Your task to perform on an android device: Open calendar and show me the fourth week of next month Image 0: 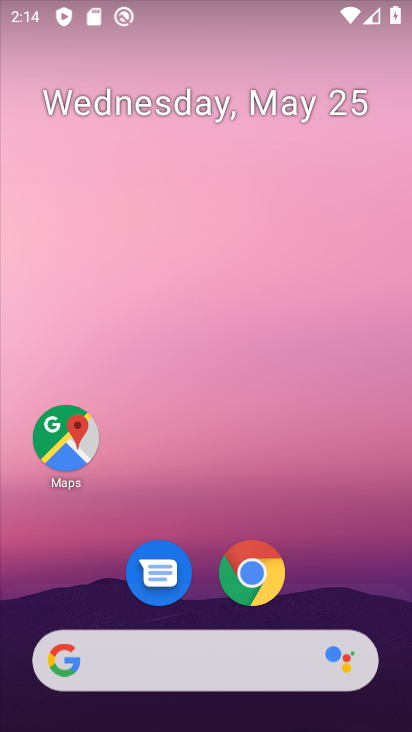
Step 0: drag from (70, 621) to (230, 201)
Your task to perform on an android device: Open calendar and show me the fourth week of next month Image 1: 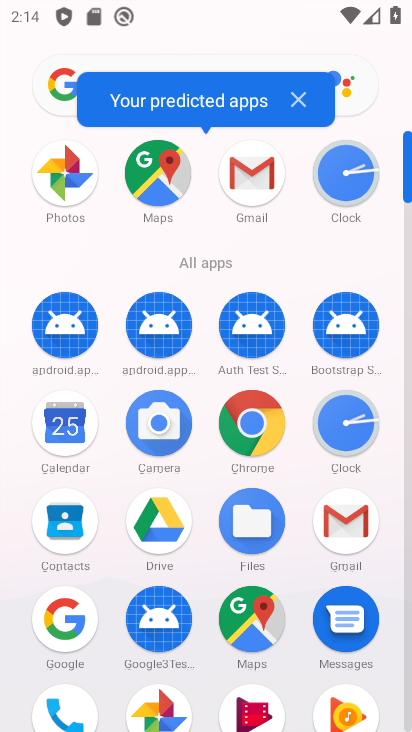
Step 1: click (57, 451)
Your task to perform on an android device: Open calendar and show me the fourth week of next month Image 2: 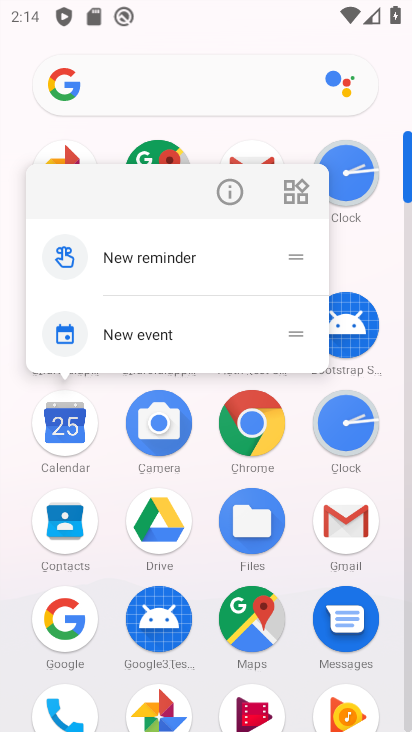
Step 2: click (69, 444)
Your task to perform on an android device: Open calendar and show me the fourth week of next month Image 3: 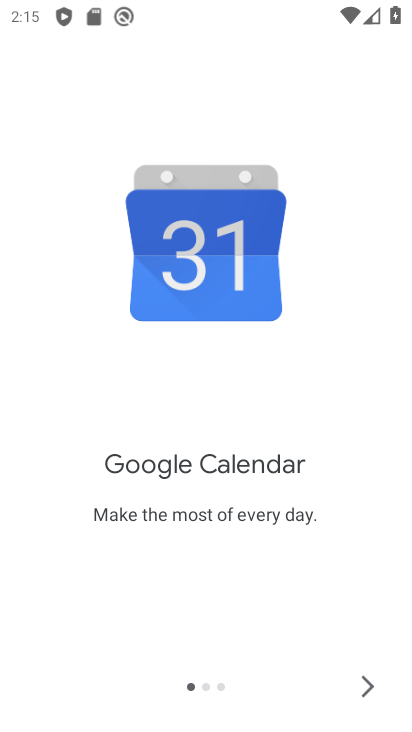
Step 3: click (365, 685)
Your task to perform on an android device: Open calendar and show me the fourth week of next month Image 4: 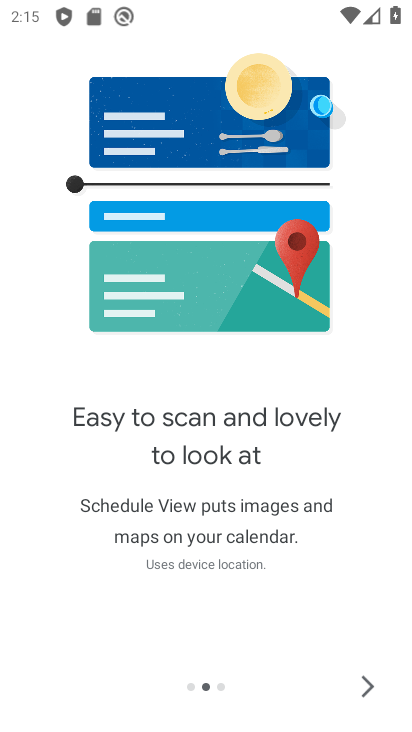
Step 4: click (365, 685)
Your task to perform on an android device: Open calendar and show me the fourth week of next month Image 5: 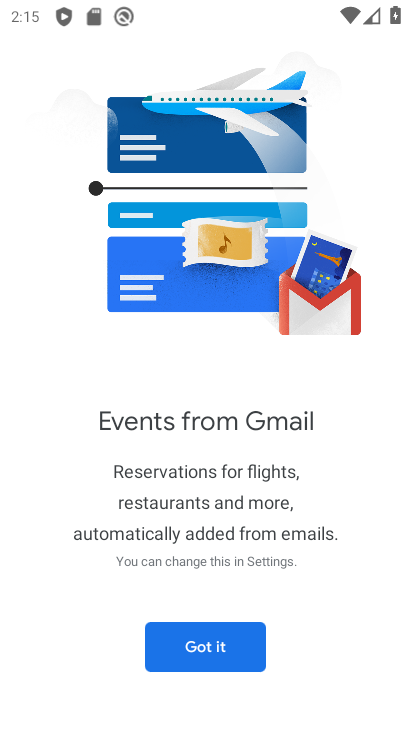
Step 5: click (365, 685)
Your task to perform on an android device: Open calendar and show me the fourth week of next month Image 6: 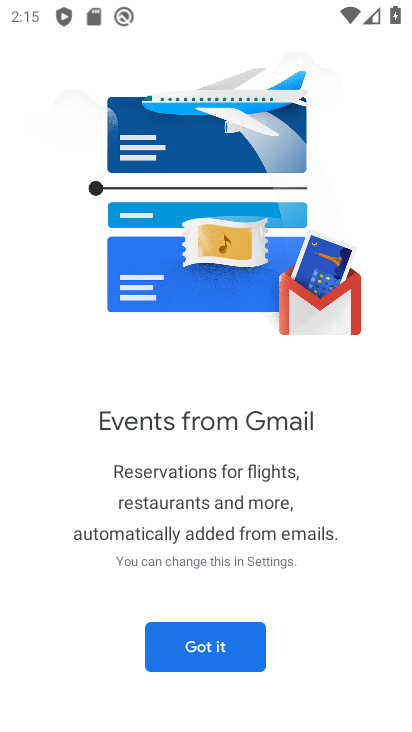
Step 6: click (175, 643)
Your task to perform on an android device: Open calendar and show me the fourth week of next month Image 7: 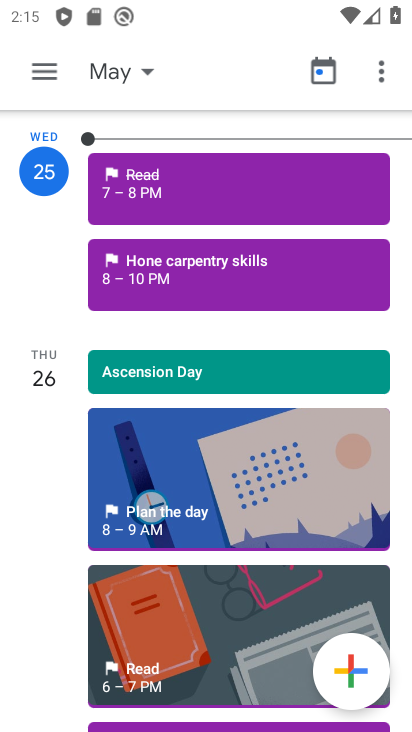
Step 7: click (132, 70)
Your task to perform on an android device: Open calendar and show me the fourth week of next month Image 8: 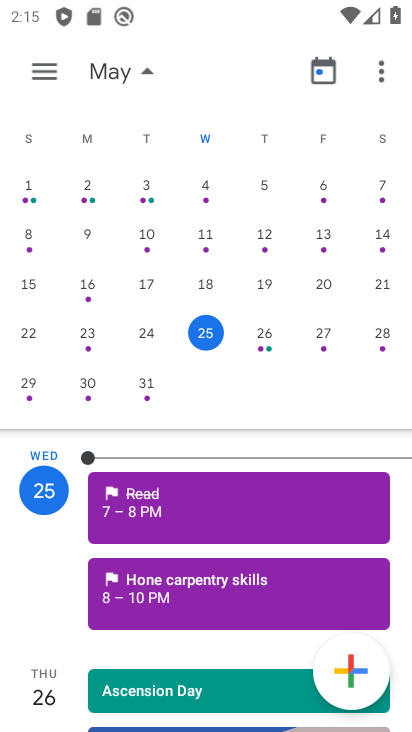
Step 8: drag from (332, 391) to (10, 374)
Your task to perform on an android device: Open calendar and show me the fourth week of next month Image 9: 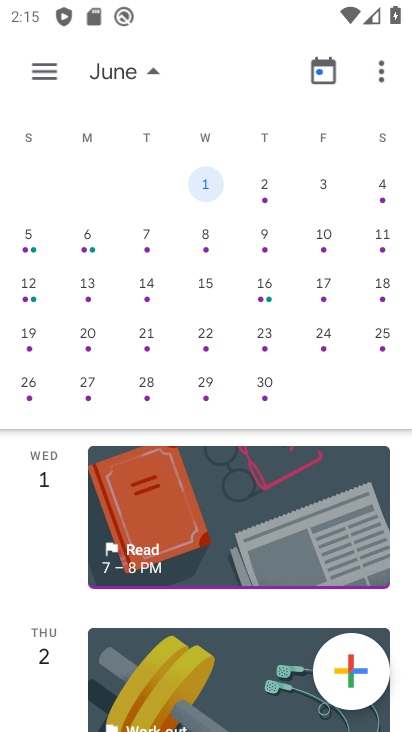
Step 9: click (26, 391)
Your task to perform on an android device: Open calendar and show me the fourth week of next month Image 10: 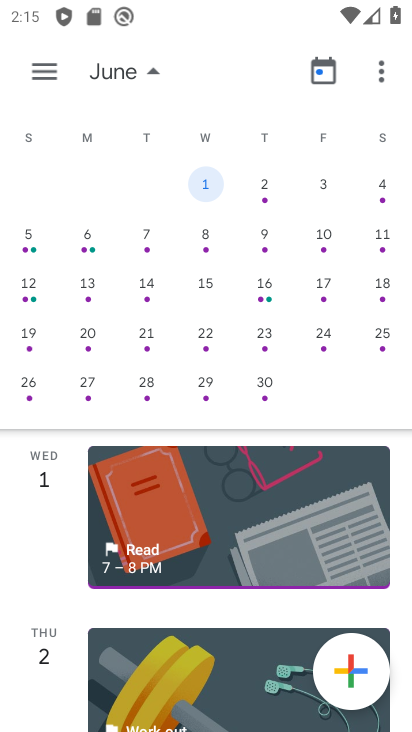
Step 10: click (31, 387)
Your task to perform on an android device: Open calendar and show me the fourth week of next month Image 11: 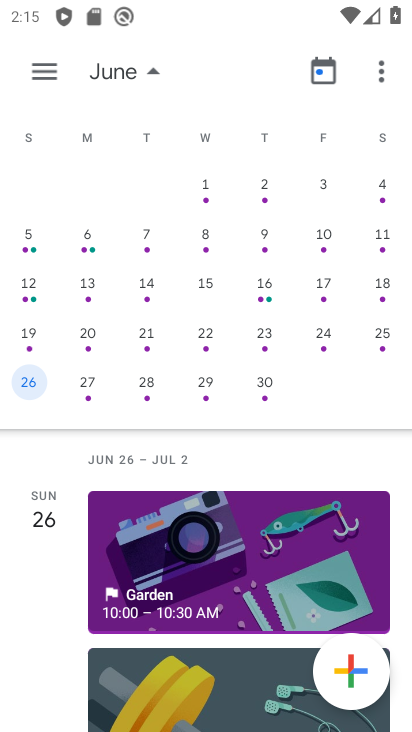
Step 11: click (44, 63)
Your task to perform on an android device: Open calendar and show me the fourth week of next month Image 12: 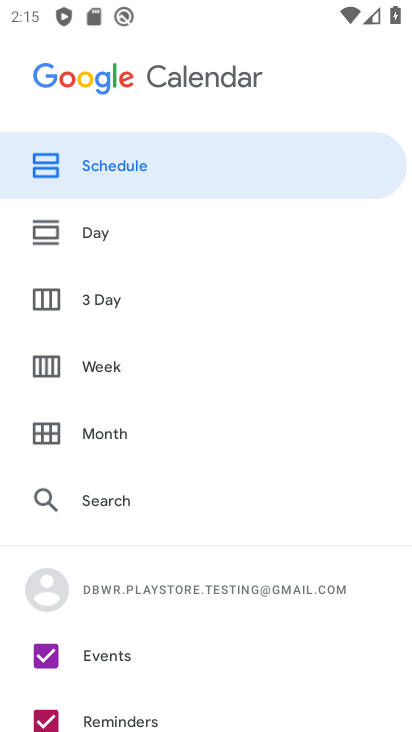
Step 12: click (98, 375)
Your task to perform on an android device: Open calendar and show me the fourth week of next month Image 13: 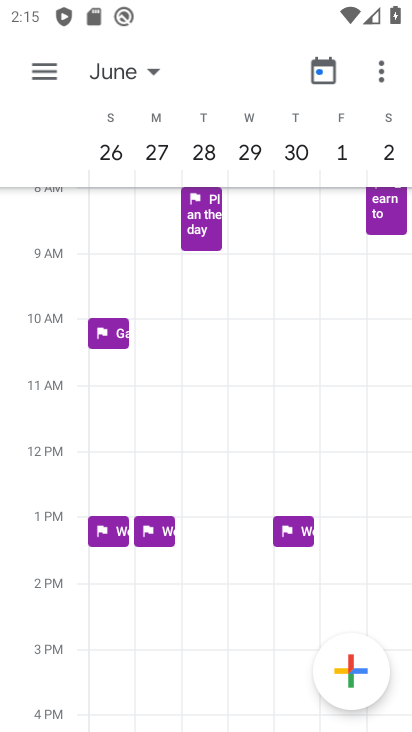
Step 13: task complete